Your task to perform on an android device: turn off improve location accuracy Image 0: 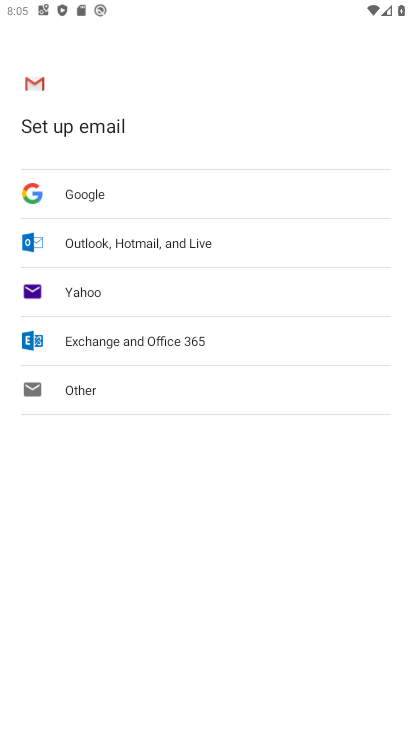
Step 0: press home button
Your task to perform on an android device: turn off improve location accuracy Image 1: 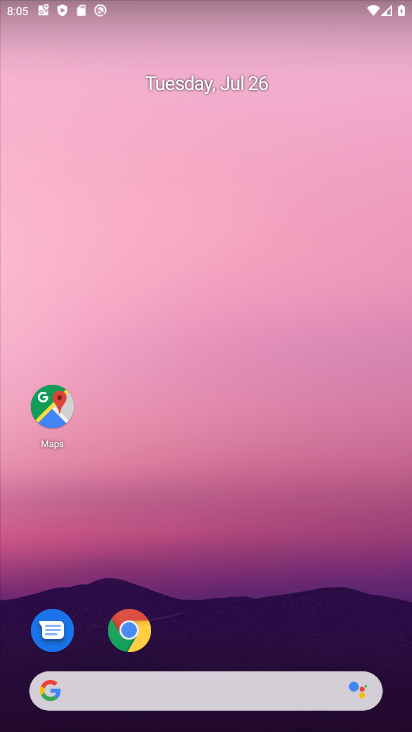
Step 1: drag from (284, 635) to (279, 128)
Your task to perform on an android device: turn off improve location accuracy Image 2: 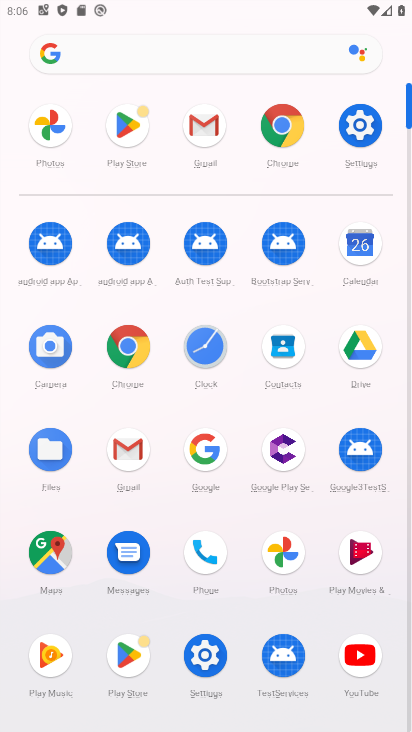
Step 2: click (347, 149)
Your task to perform on an android device: turn off improve location accuracy Image 3: 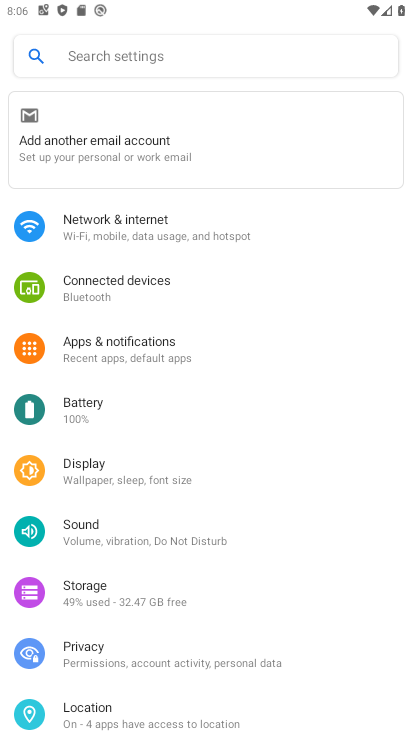
Step 3: click (96, 718)
Your task to perform on an android device: turn off improve location accuracy Image 4: 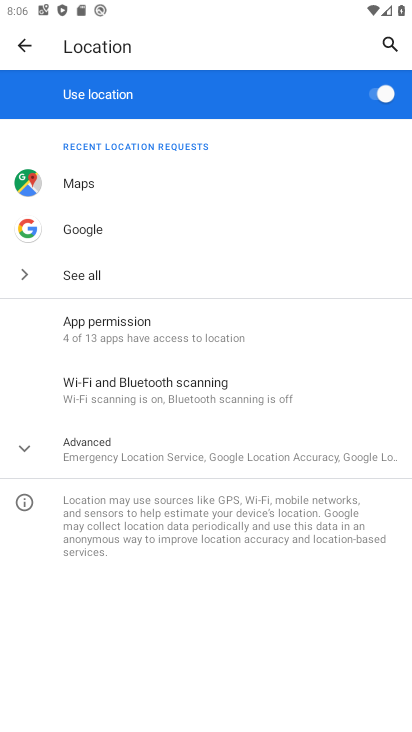
Step 4: click (191, 442)
Your task to perform on an android device: turn off improve location accuracy Image 5: 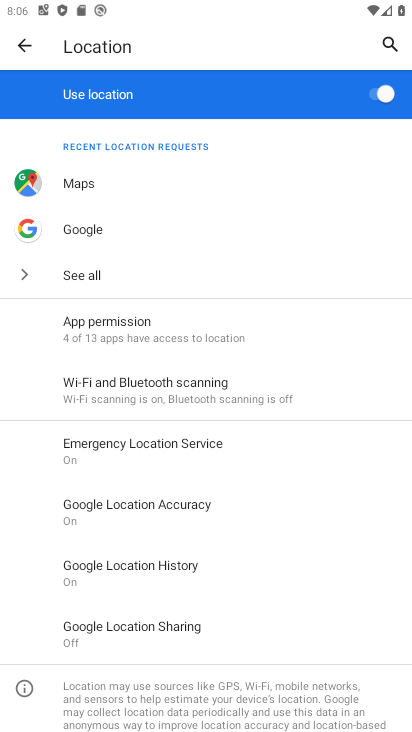
Step 5: click (150, 576)
Your task to perform on an android device: turn off improve location accuracy Image 6: 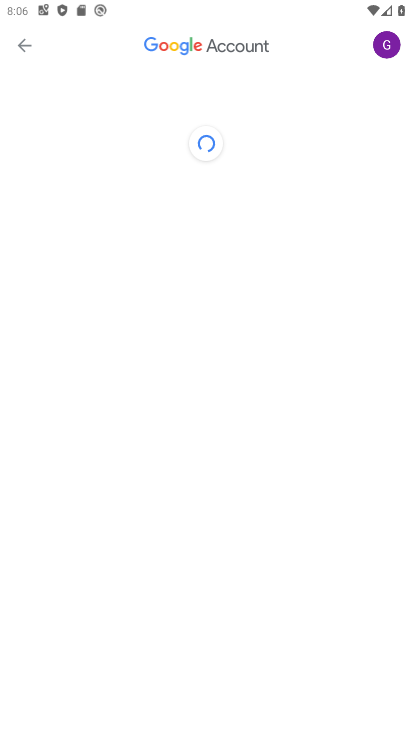
Step 6: task complete